Your task to perform on an android device: Open Yahoo.com Image 0: 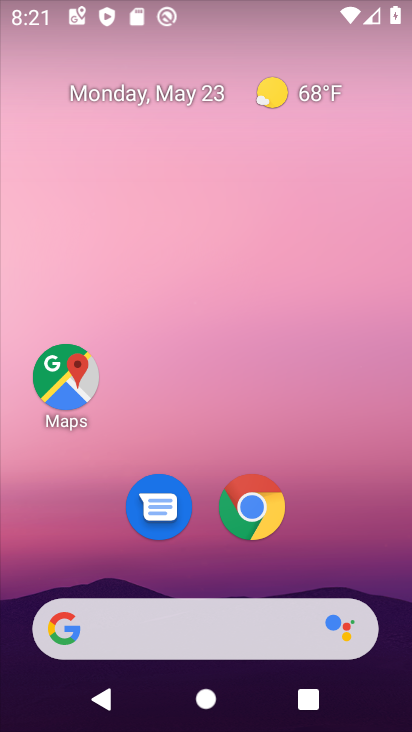
Step 0: click (211, 630)
Your task to perform on an android device: Open Yahoo.com Image 1: 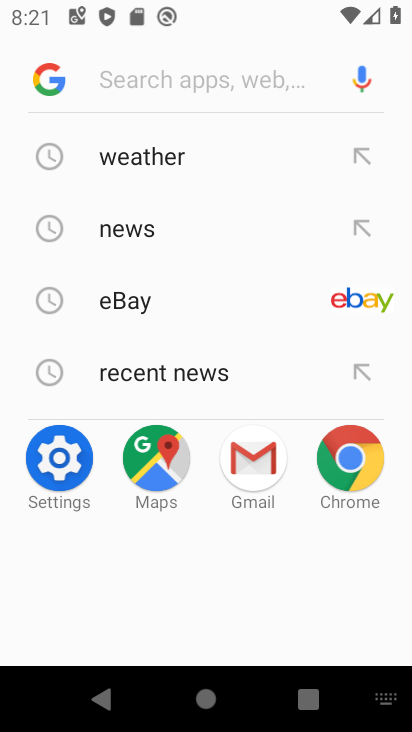
Step 1: type "Yahoo.com"
Your task to perform on an android device: Open Yahoo.com Image 2: 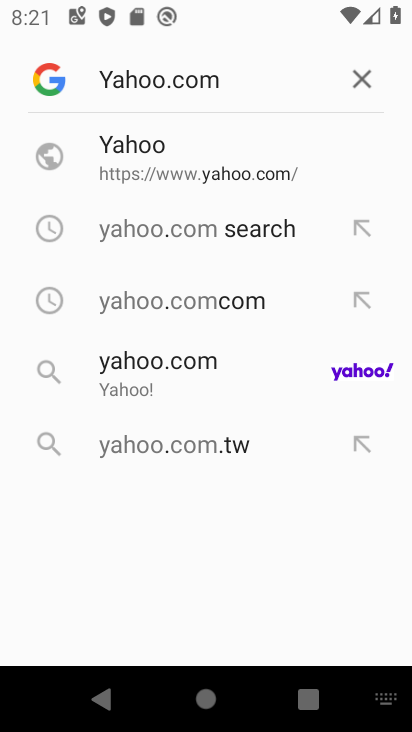
Step 2: click (185, 189)
Your task to perform on an android device: Open Yahoo.com Image 3: 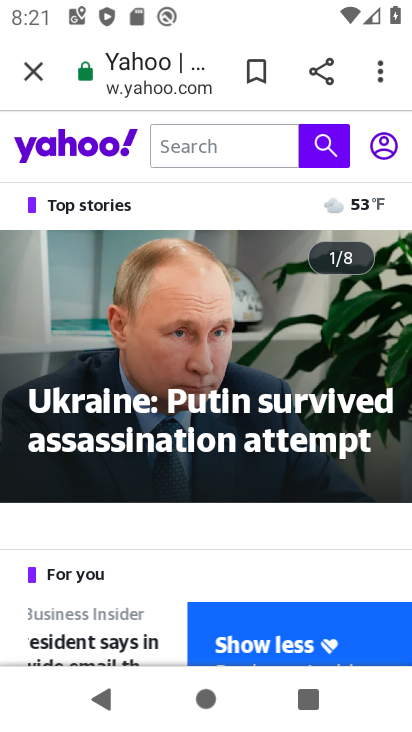
Step 3: task complete